Your task to perform on an android device: Open Android settings Image 0: 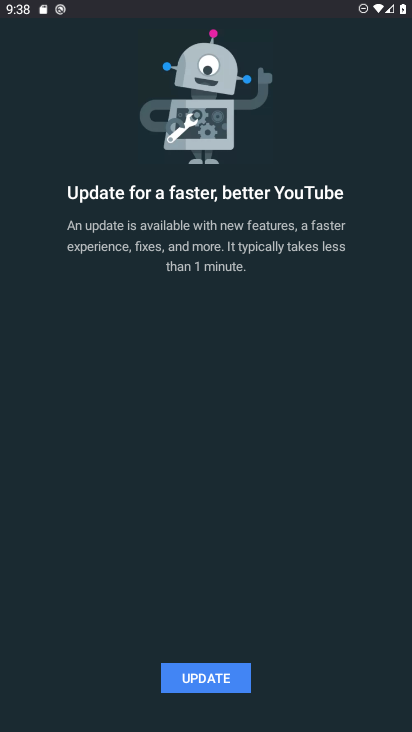
Step 0: press back button
Your task to perform on an android device: Open Android settings Image 1: 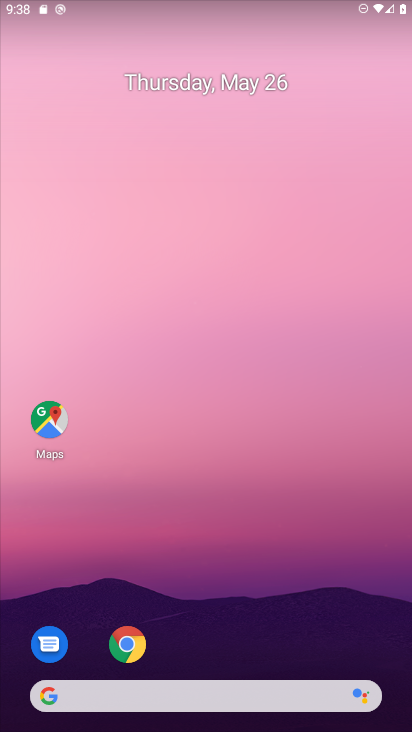
Step 1: drag from (236, 681) to (304, 110)
Your task to perform on an android device: Open Android settings Image 2: 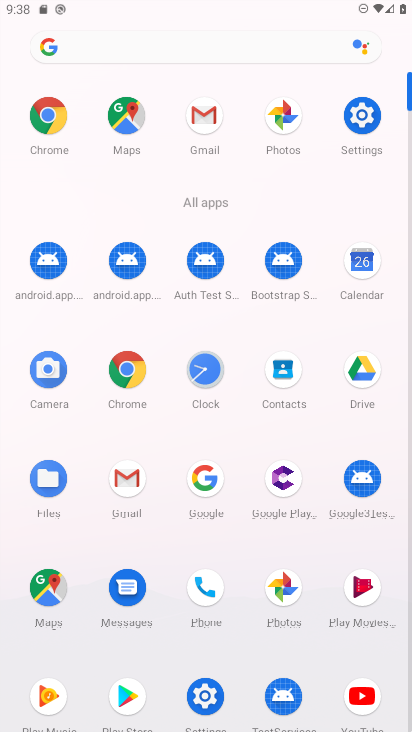
Step 2: drag from (223, 575) to (296, 262)
Your task to perform on an android device: Open Android settings Image 3: 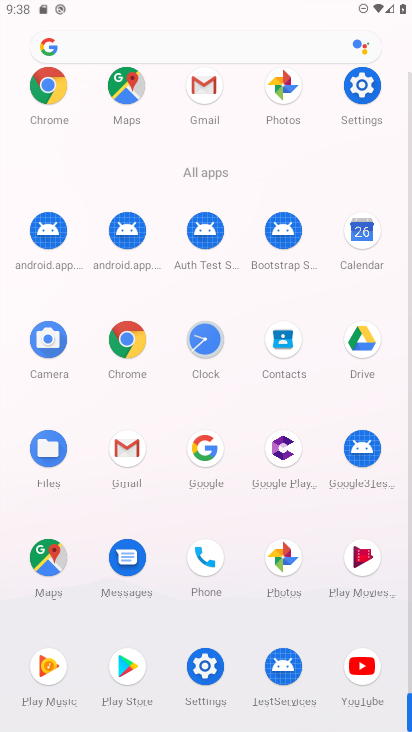
Step 3: click (206, 680)
Your task to perform on an android device: Open Android settings Image 4: 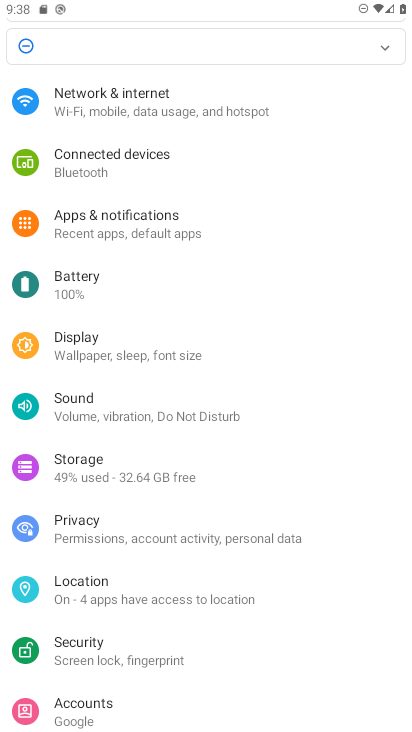
Step 4: task complete